Your task to perform on an android device: turn on the 24-hour format for clock Image 0: 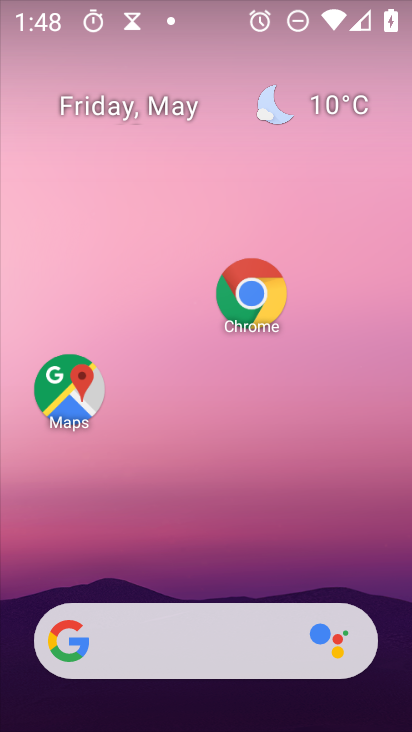
Step 0: press home button
Your task to perform on an android device: turn on the 24-hour format for clock Image 1: 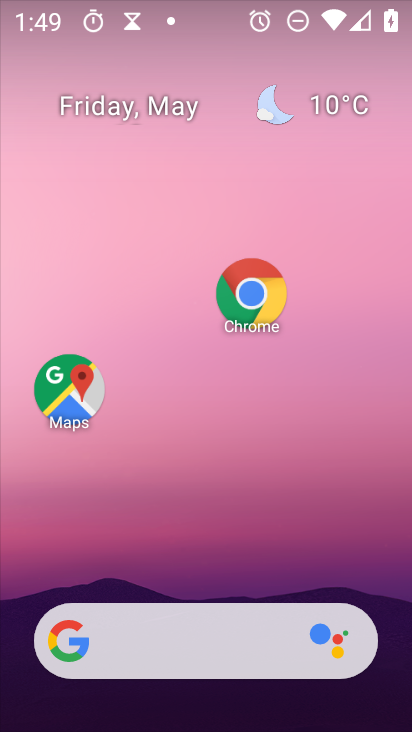
Step 1: drag from (144, 625) to (273, 199)
Your task to perform on an android device: turn on the 24-hour format for clock Image 2: 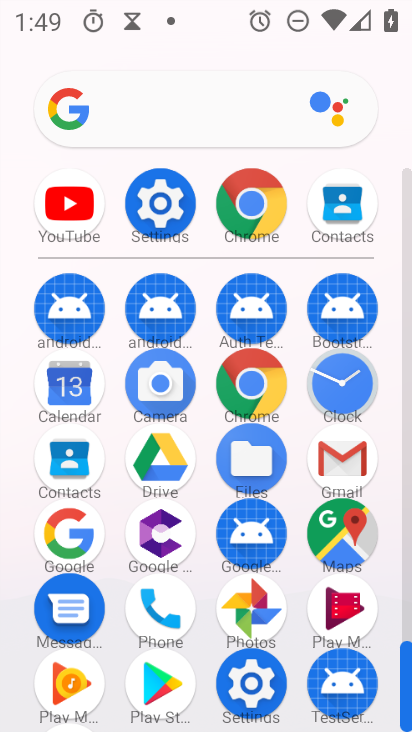
Step 2: click (337, 382)
Your task to perform on an android device: turn on the 24-hour format for clock Image 3: 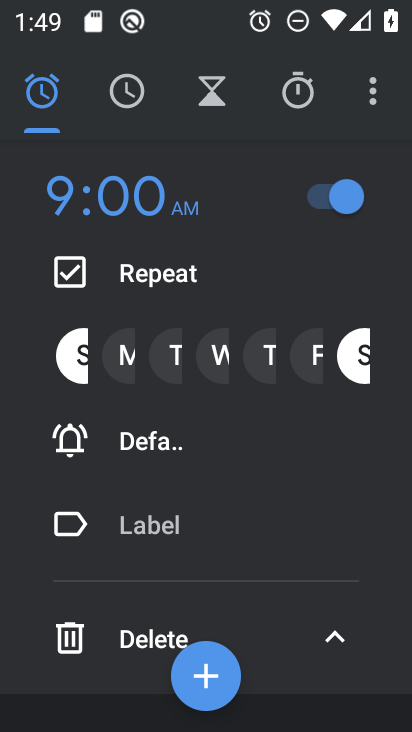
Step 3: click (369, 91)
Your task to perform on an android device: turn on the 24-hour format for clock Image 4: 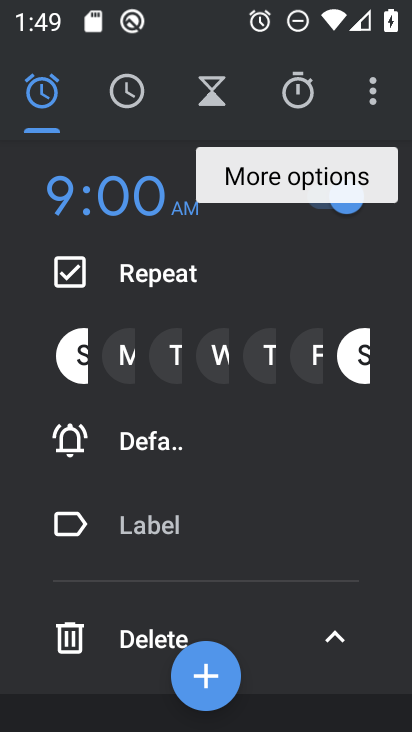
Step 4: click (371, 101)
Your task to perform on an android device: turn on the 24-hour format for clock Image 5: 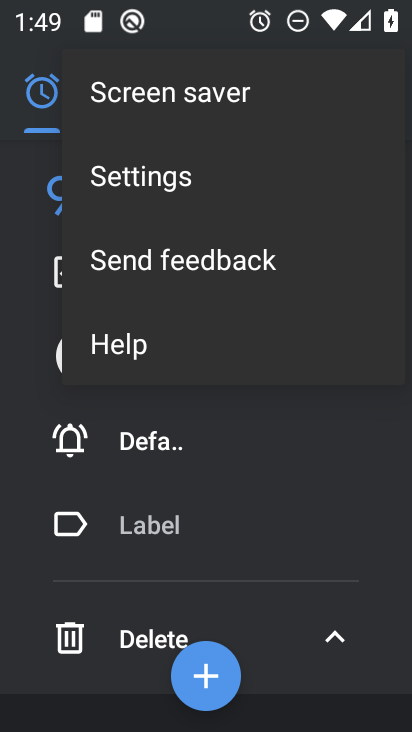
Step 5: click (202, 176)
Your task to perform on an android device: turn on the 24-hour format for clock Image 6: 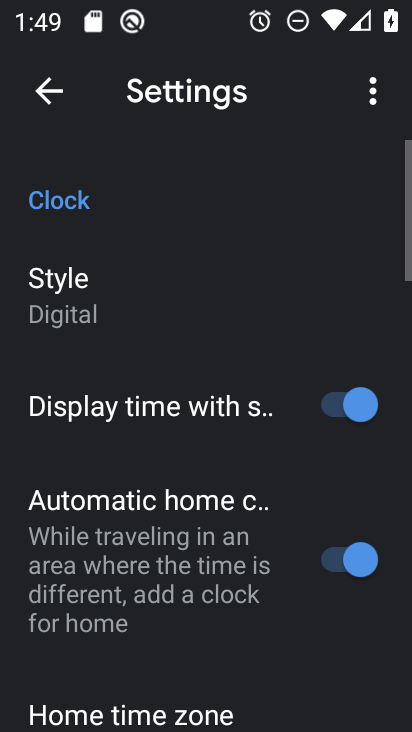
Step 6: drag from (155, 623) to (314, 199)
Your task to perform on an android device: turn on the 24-hour format for clock Image 7: 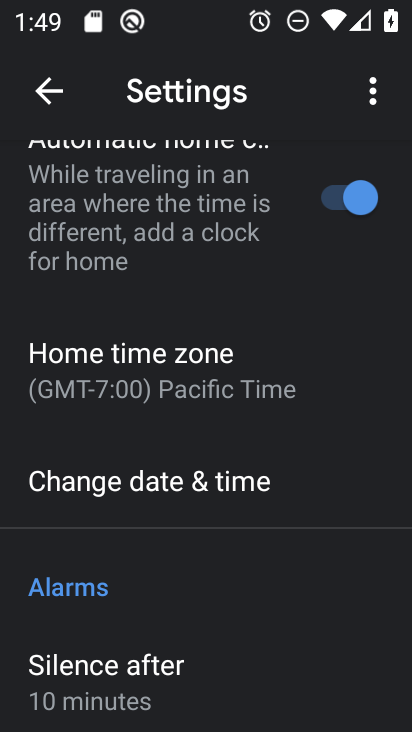
Step 7: click (164, 485)
Your task to perform on an android device: turn on the 24-hour format for clock Image 8: 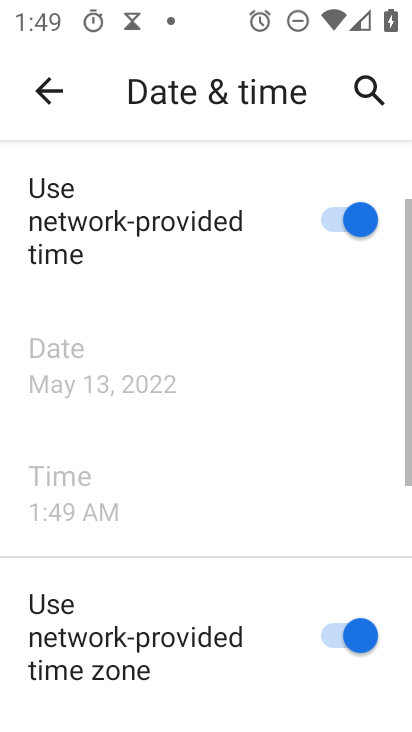
Step 8: drag from (241, 661) to (348, 361)
Your task to perform on an android device: turn on the 24-hour format for clock Image 9: 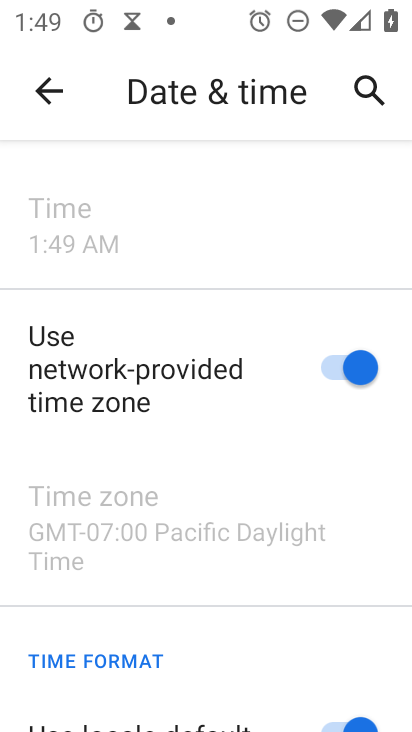
Step 9: drag from (259, 664) to (335, 292)
Your task to perform on an android device: turn on the 24-hour format for clock Image 10: 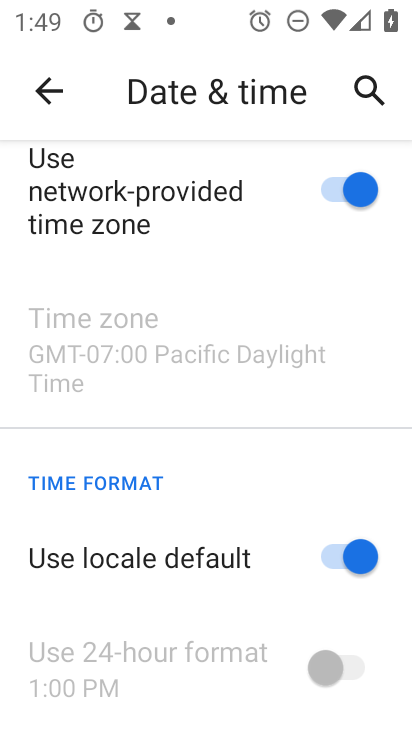
Step 10: click (349, 674)
Your task to perform on an android device: turn on the 24-hour format for clock Image 11: 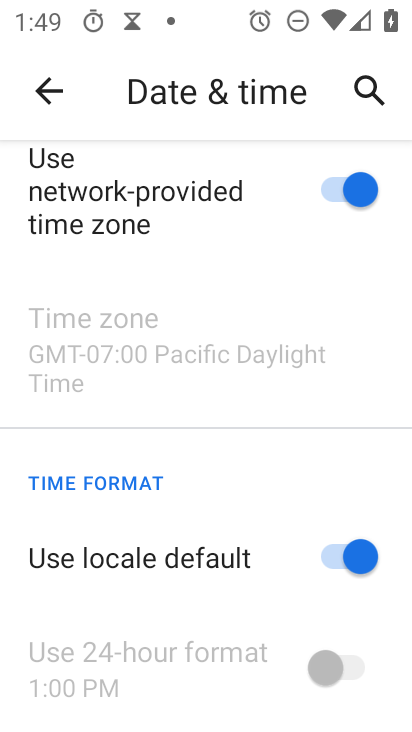
Step 11: click (331, 563)
Your task to perform on an android device: turn on the 24-hour format for clock Image 12: 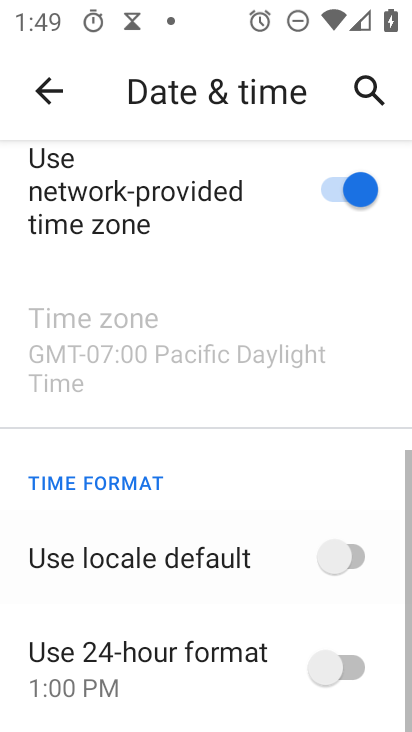
Step 12: click (350, 669)
Your task to perform on an android device: turn on the 24-hour format for clock Image 13: 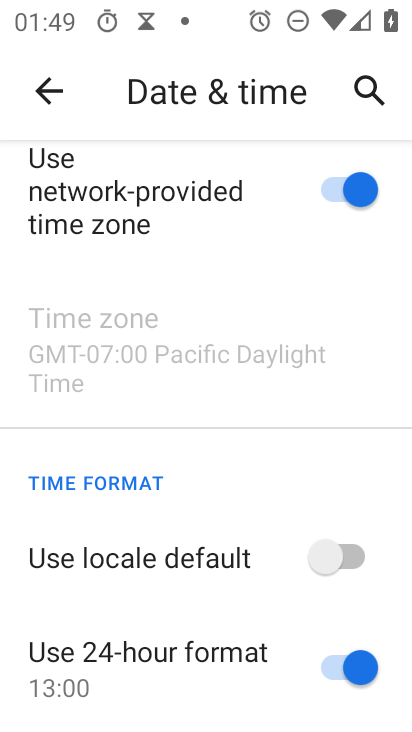
Step 13: task complete